Your task to perform on an android device: Open notification settings Image 0: 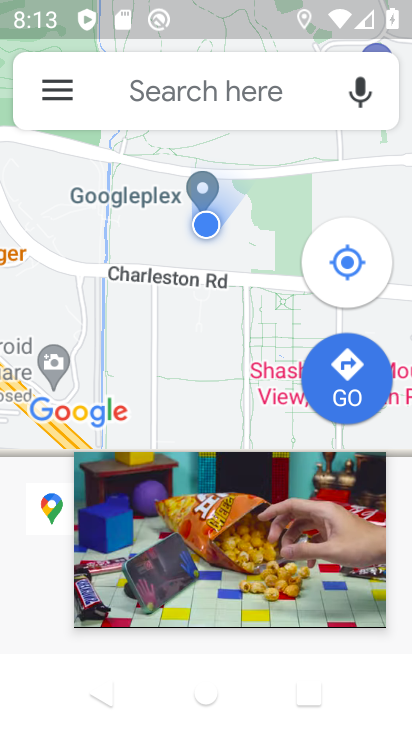
Step 0: press back button
Your task to perform on an android device: Open notification settings Image 1: 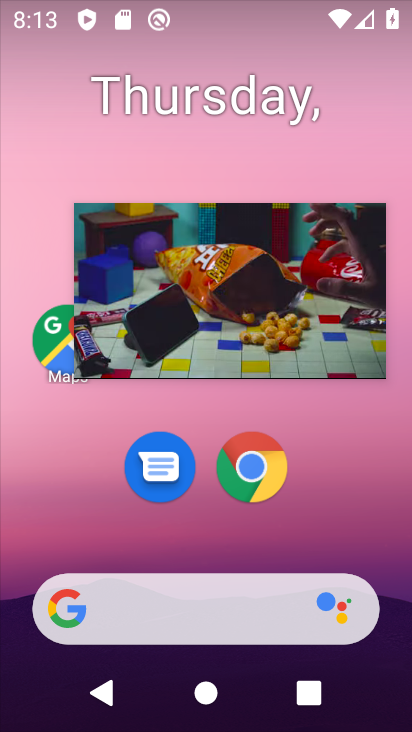
Step 1: click (266, 286)
Your task to perform on an android device: Open notification settings Image 2: 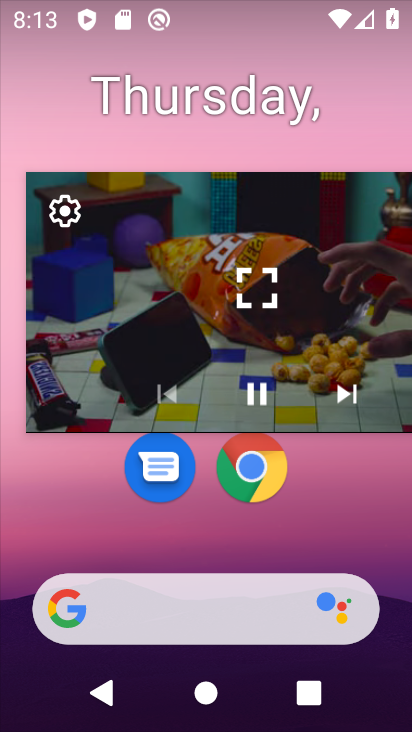
Step 2: click (227, 284)
Your task to perform on an android device: Open notification settings Image 3: 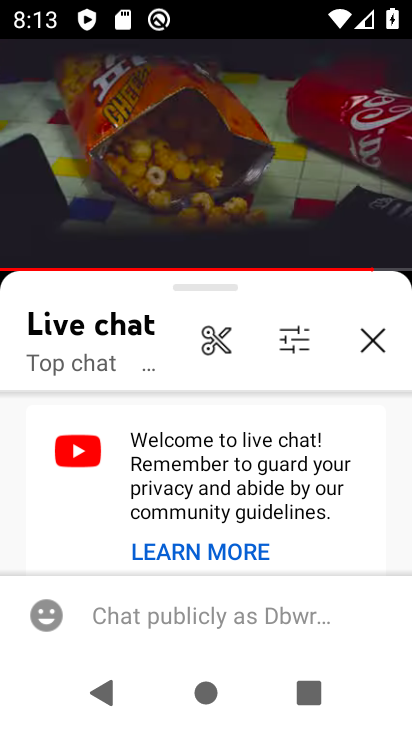
Step 3: click (217, 165)
Your task to perform on an android device: Open notification settings Image 4: 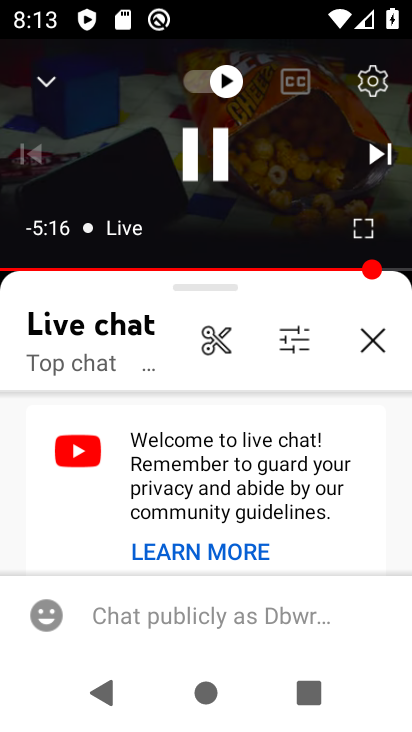
Step 4: click (215, 153)
Your task to perform on an android device: Open notification settings Image 5: 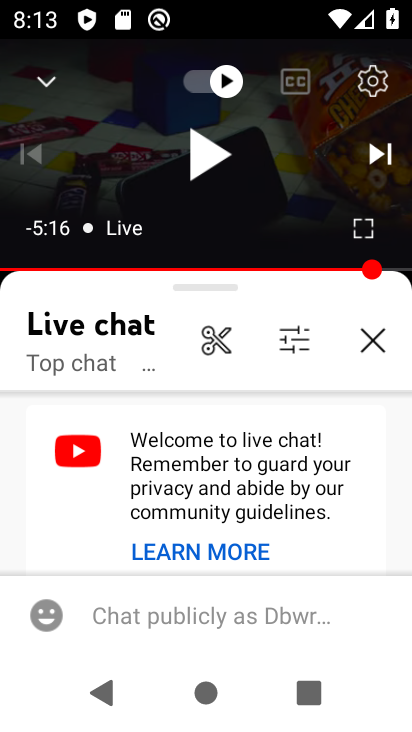
Step 5: press home button
Your task to perform on an android device: Open notification settings Image 6: 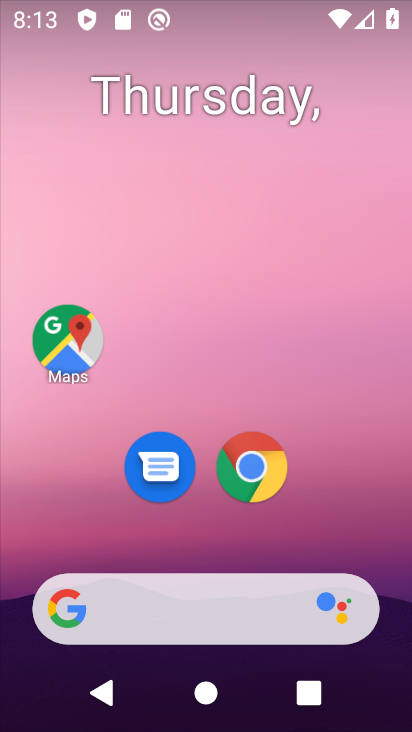
Step 6: drag from (191, 552) to (308, 58)
Your task to perform on an android device: Open notification settings Image 7: 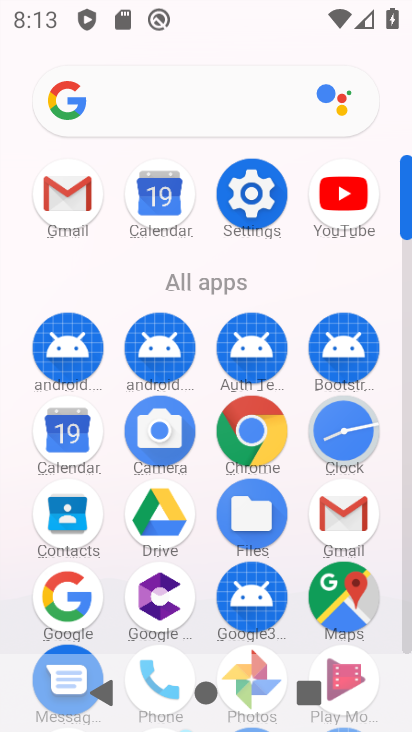
Step 7: click (249, 180)
Your task to perform on an android device: Open notification settings Image 8: 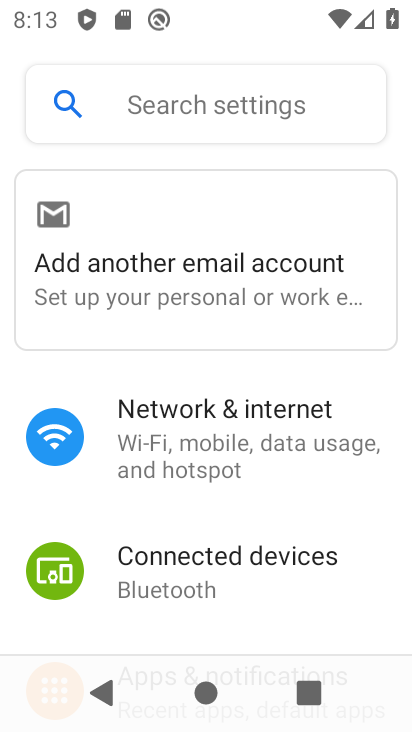
Step 8: drag from (205, 554) to (304, 224)
Your task to perform on an android device: Open notification settings Image 9: 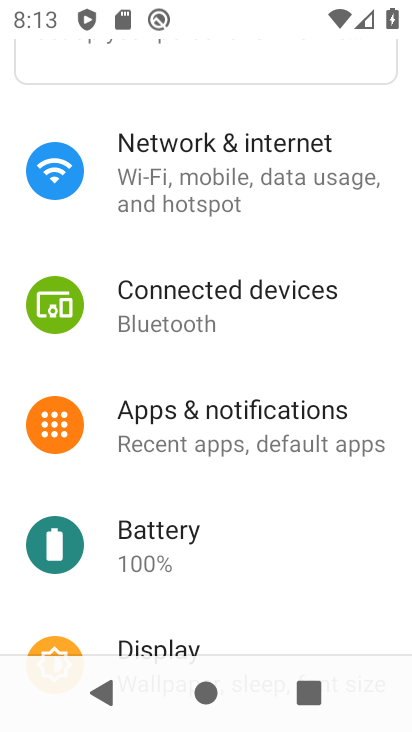
Step 9: click (228, 419)
Your task to perform on an android device: Open notification settings Image 10: 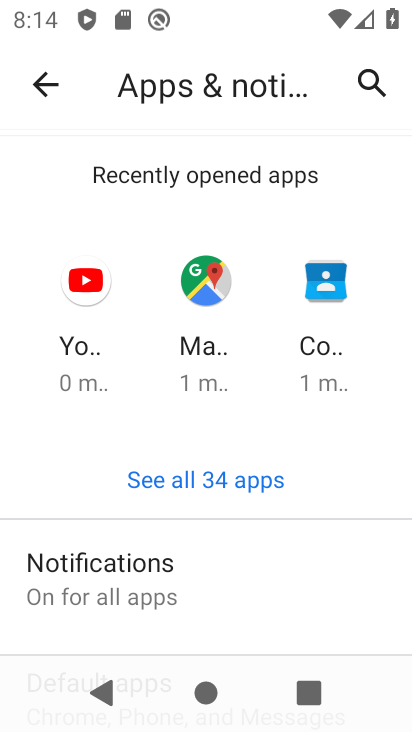
Step 10: task complete